Your task to perform on an android device: turn on bluetooth scan Image 0: 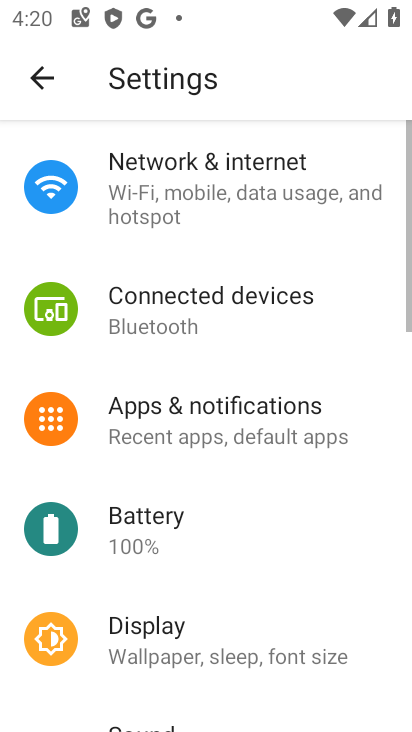
Step 0: click (210, 311)
Your task to perform on an android device: turn on bluetooth scan Image 1: 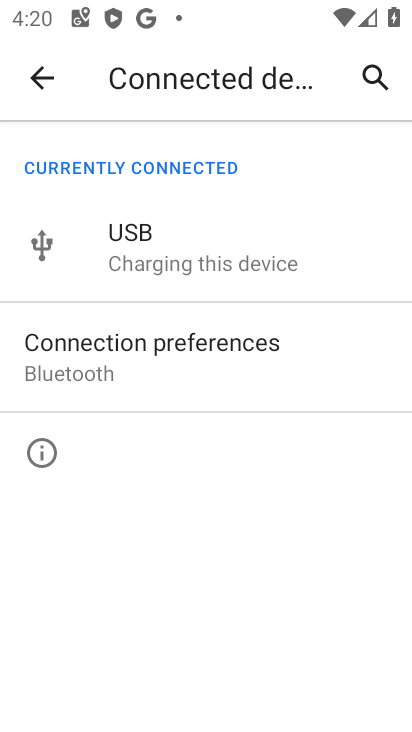
Step 1: click (64, 369)
Your task to perform on an android device: turn on bluetooth scan Image 2: 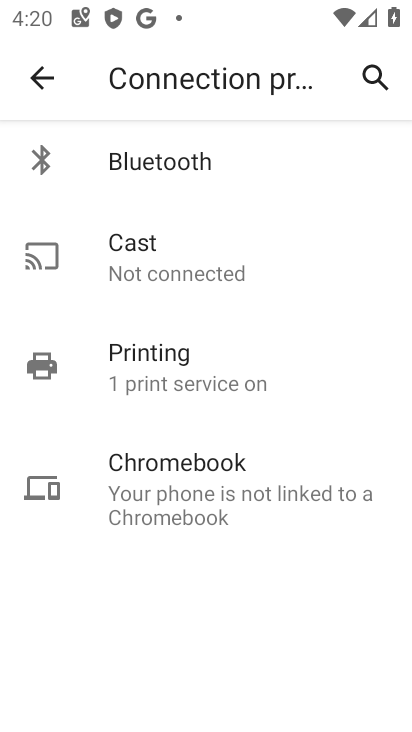
Step 2: click (193, 162)
Your task to perform on an android device: turn on bluetooth scan Image 3: 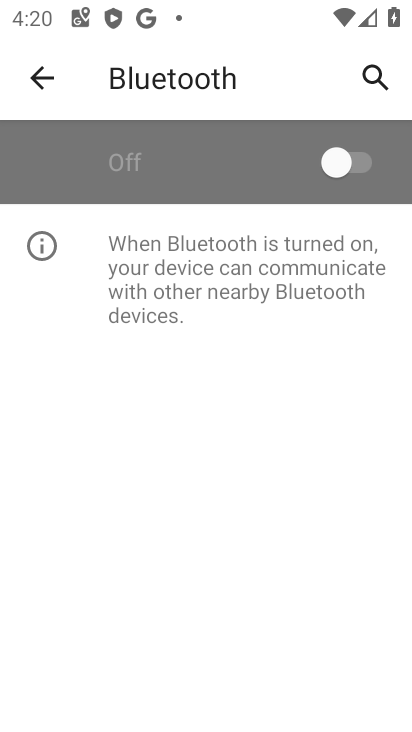
Step 3: click (324, 166)
Your task to perform on an android device: turn on bluetooth scan Image 4: 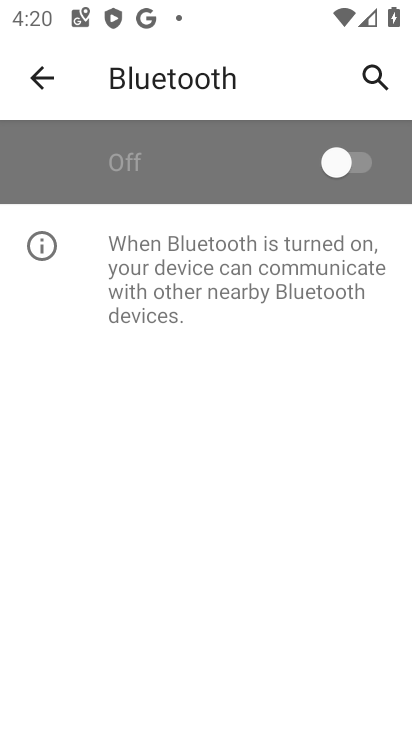
Step 4: task complete